Your task to perform on an android device: change the upload size in google photos Image 0: 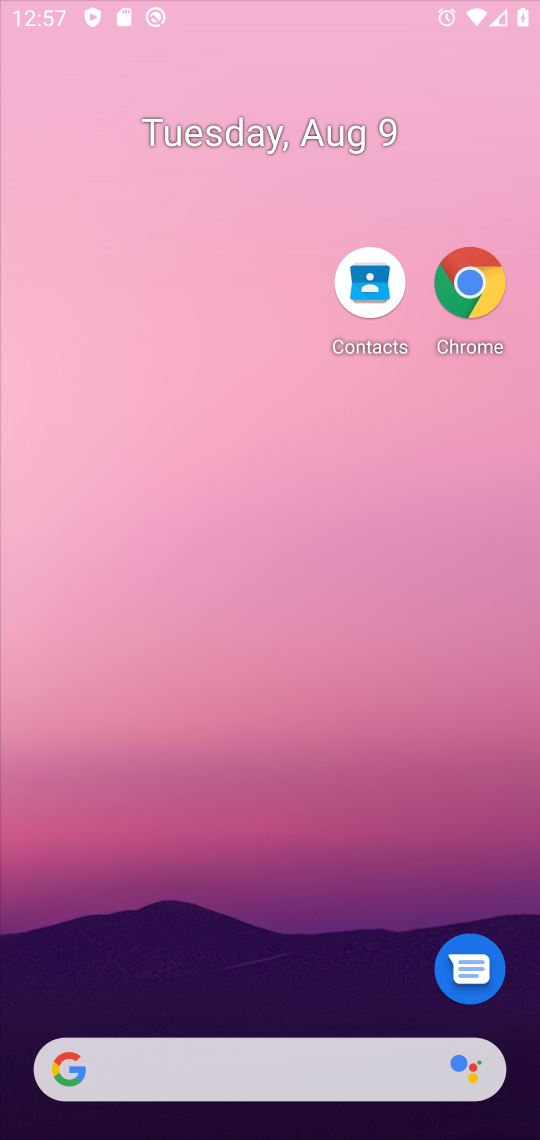
Step 0: drag from (256, 756) to (240, 169)
Your task to perform on an android device: change the upload size in google photos Image 1: 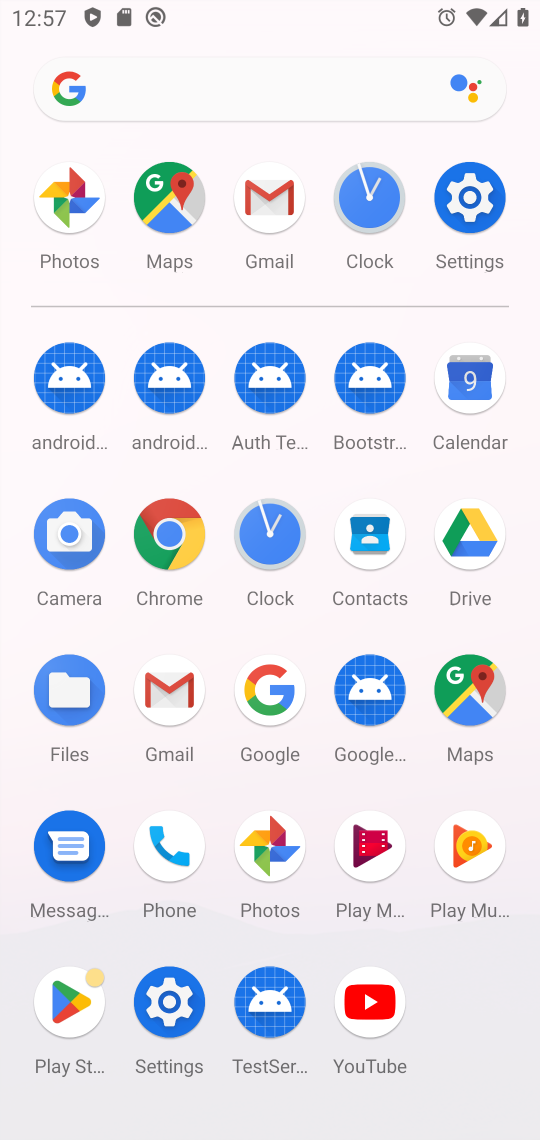
Step 1: drag from (225, 785) to (225, 228)
Your task to perform on an android device: change the upload size in google photos Image 2: 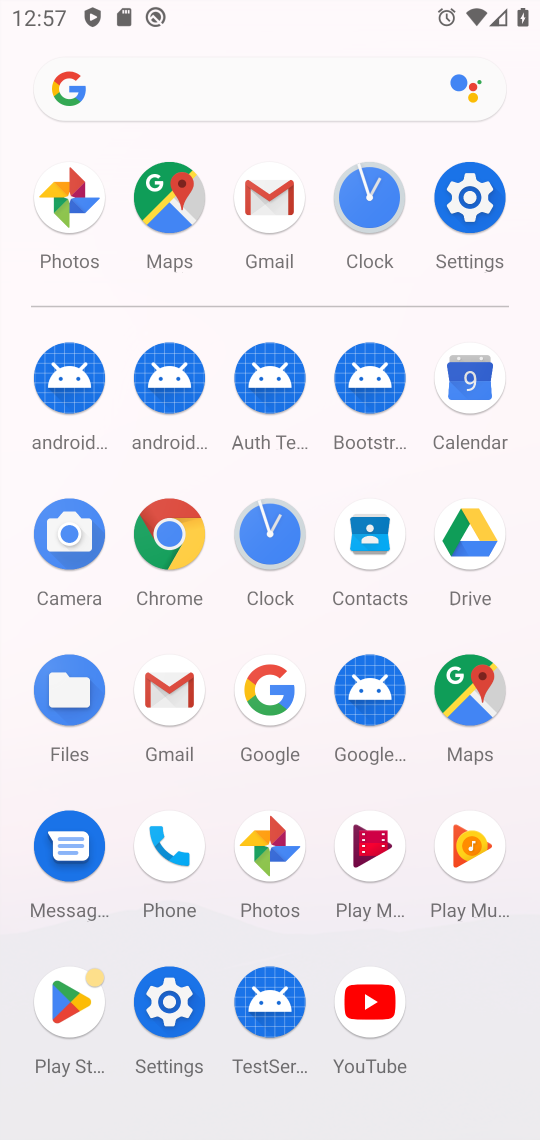
Step 2: drag from (210, 915) to (235, 116)
Your task to perform on an android device: change the upload size in google photos Image 3: 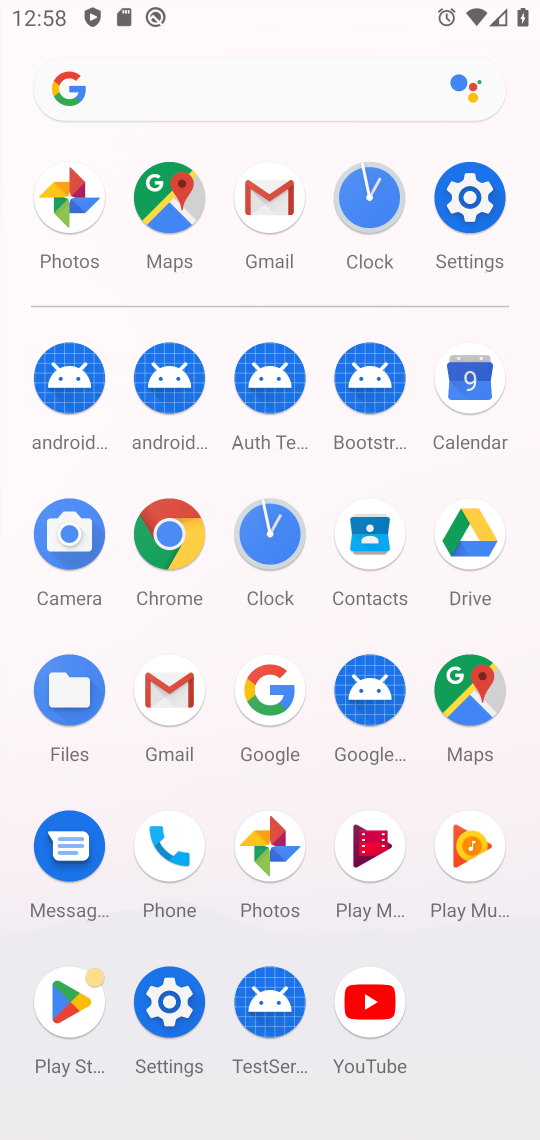
Step 3: click (268, 857)
Your task to perform on an android device: change the upload size in google photos Image 4: 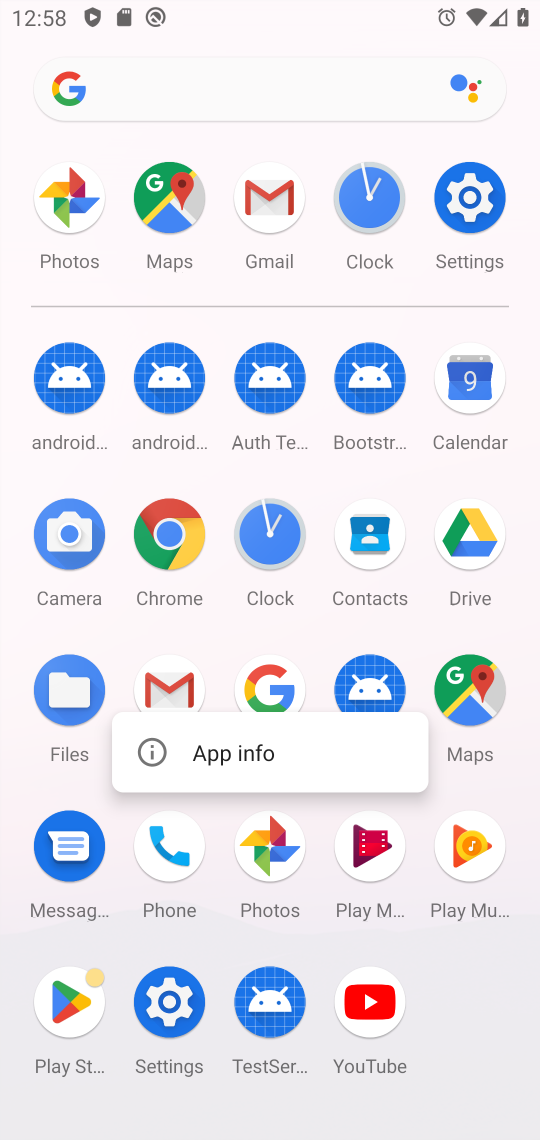
Step 4: click (195, 750)
Your task to perform on an android device: change the upload size in google photos Image 5: 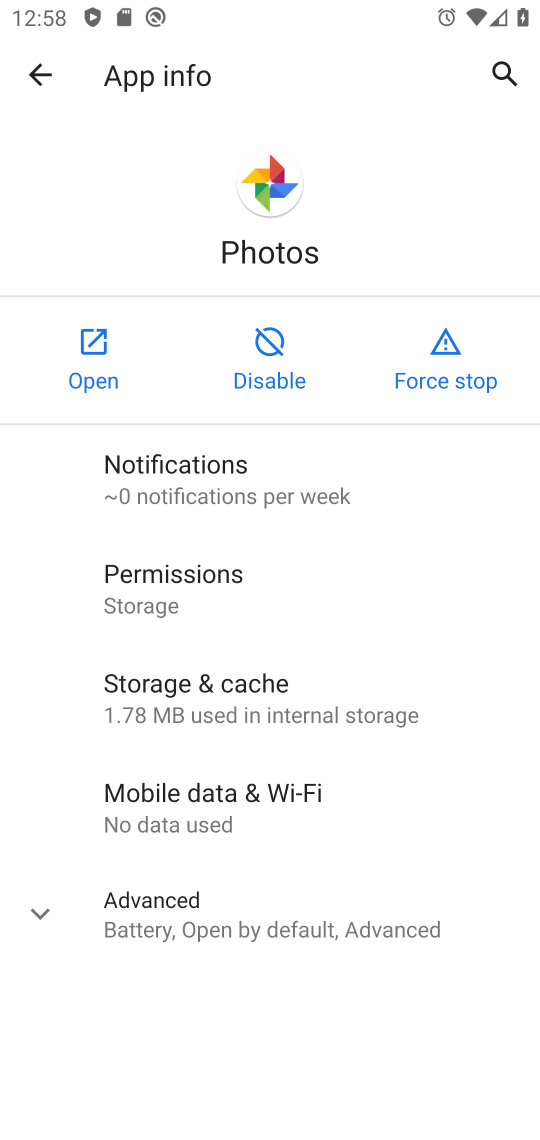
Step 5: click (79, 358)
Your task to perform on an android device: change the upload size in google photos Image 6: 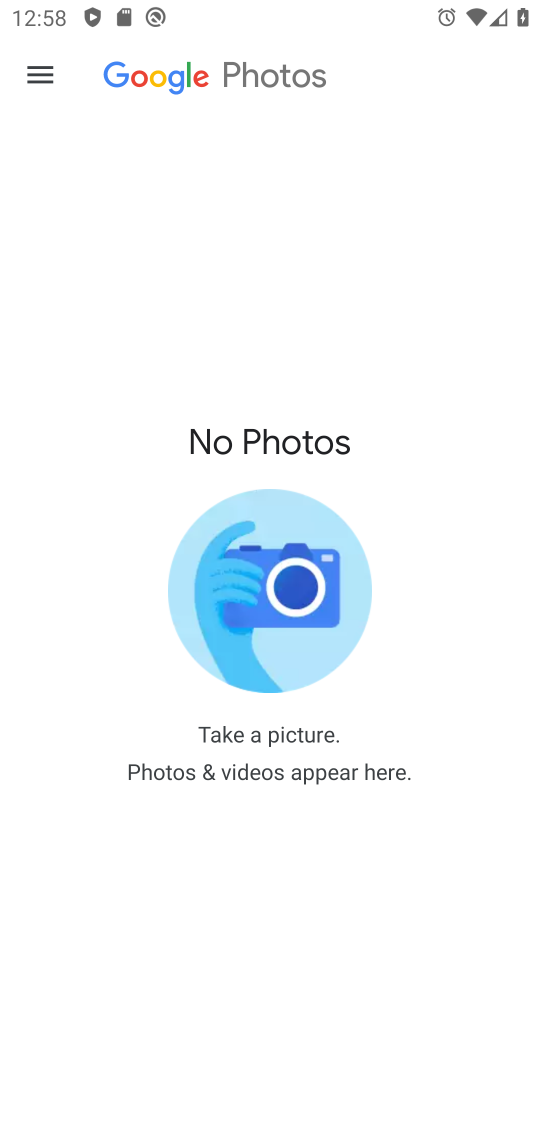
Step 6: click (45, 71)
Your task to perform on an android device: change the upload size in google photos Image 7: 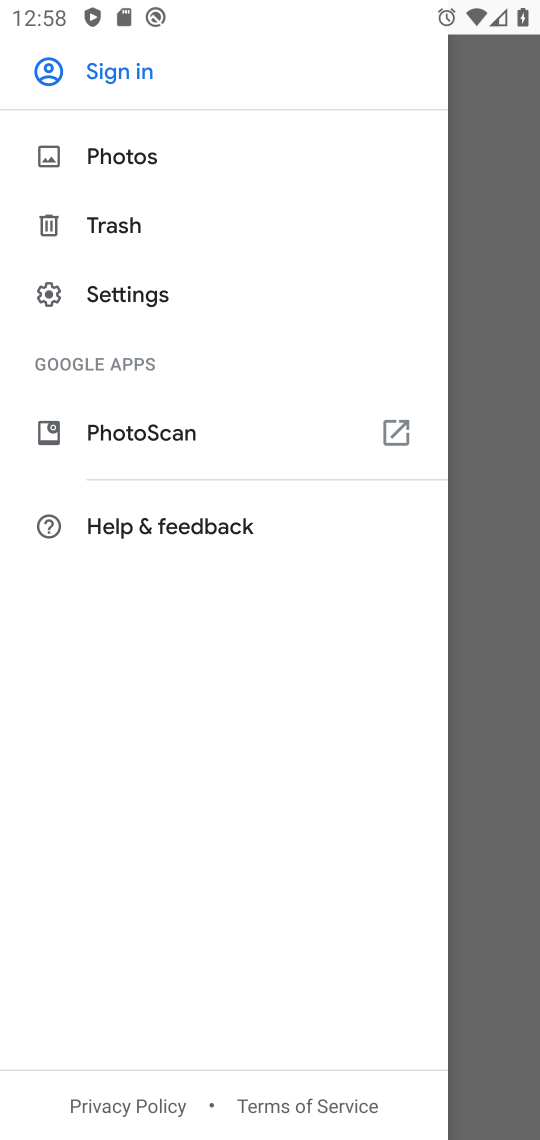
Step 7: click (114, 297)
Your task to perform on an android device: change the upload size in google photos Image 8: 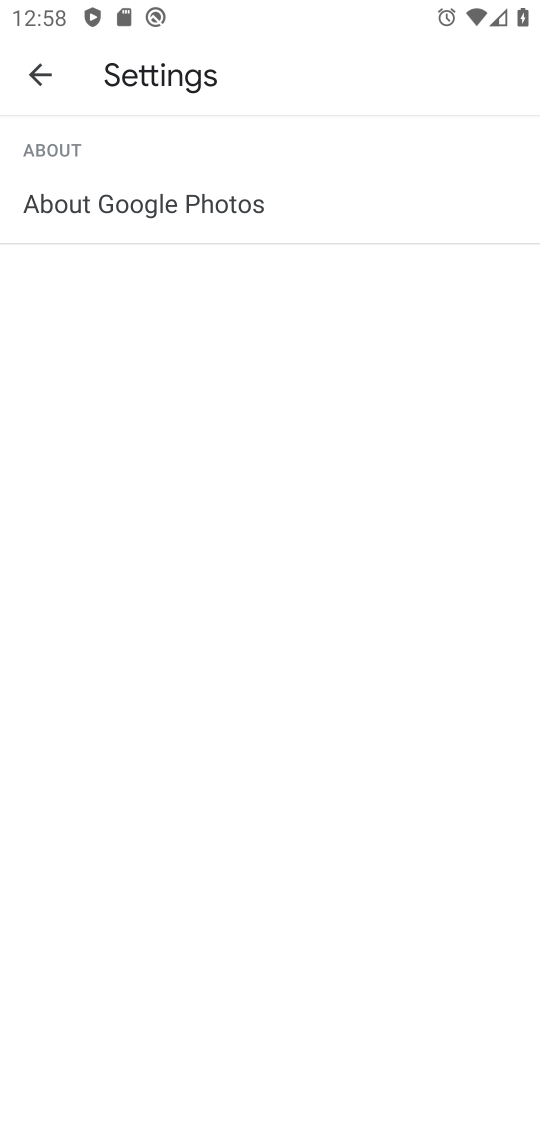
Step 8: drag from (304, 239) to (288, 49)
Your task to perform on an android device: change the upload size in google photos Image 9: 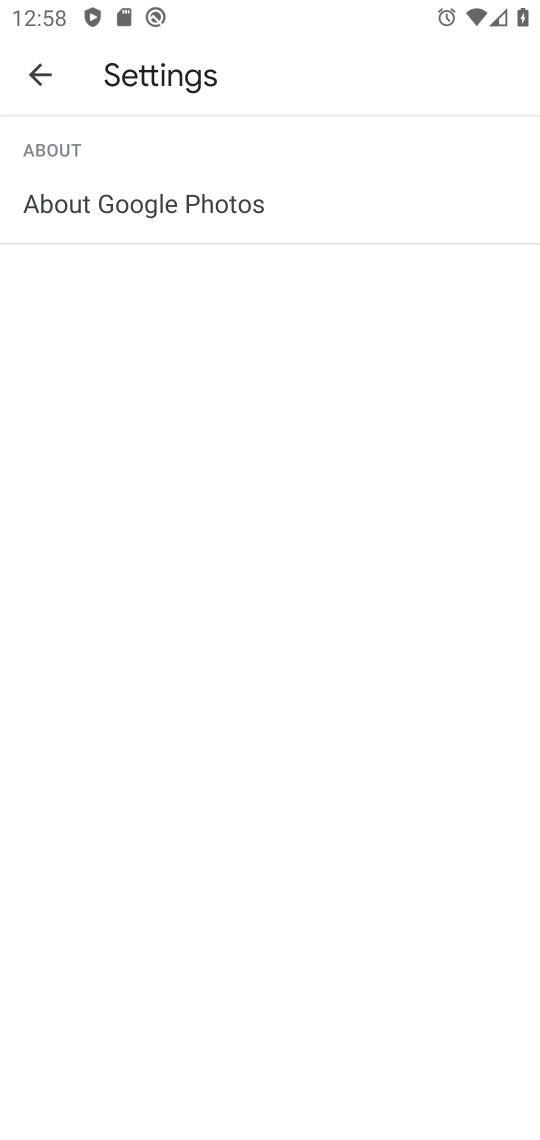
Step 9: drag from (280, 791) to (314, 615)
Your task to perform on an android device: change the upload size in google photos Image 10: 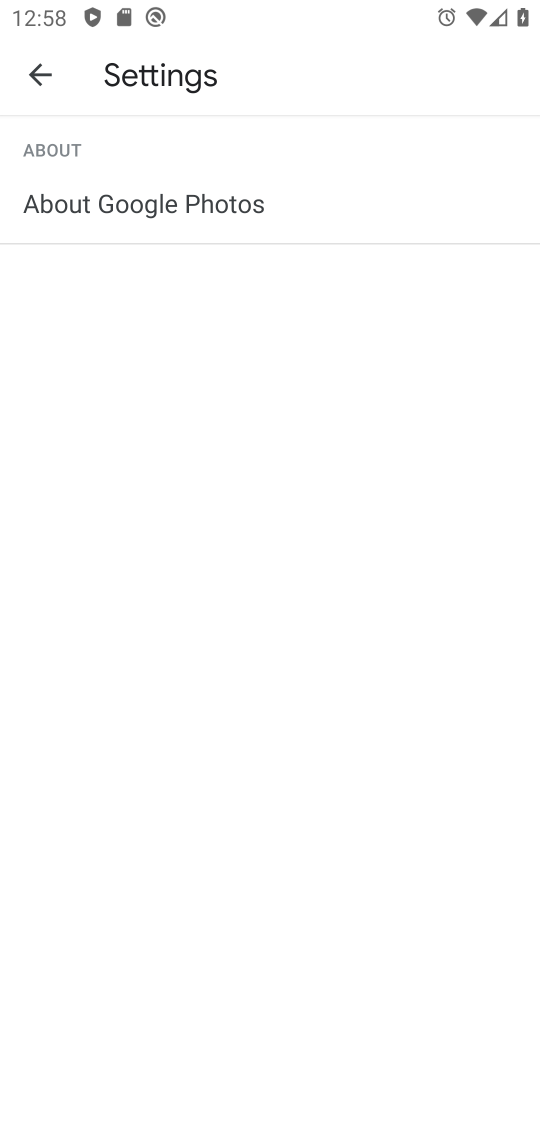
Step 10: drag from (177, 633) to (191, 583)
Your task to perform on an android device: change the upload size in google photos Image 11: 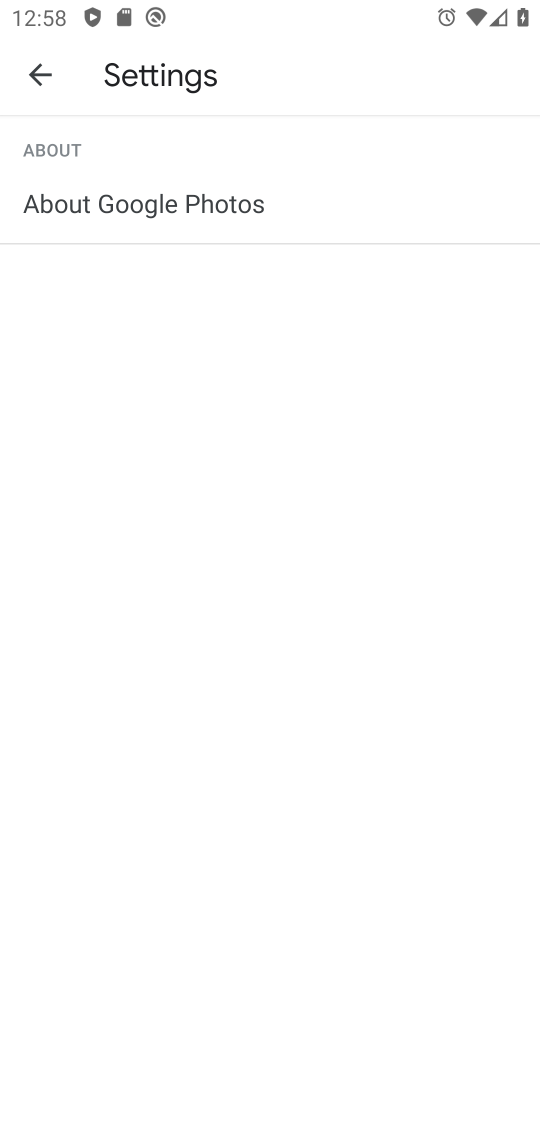
Step 11: drag from (245, 432) to (279, 694)
Your task to perform on an android device: change the upload size in google photos Image 12: 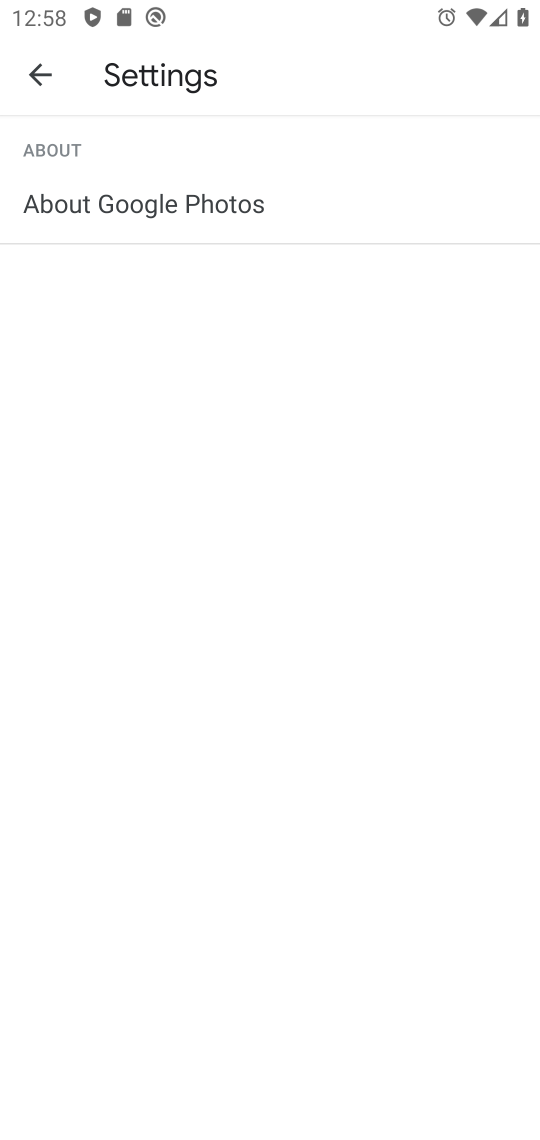
Step 12: drag from (312, 434) to (337, 610)
Your task to perform on an android device: change the upload size in google photos Image 13: 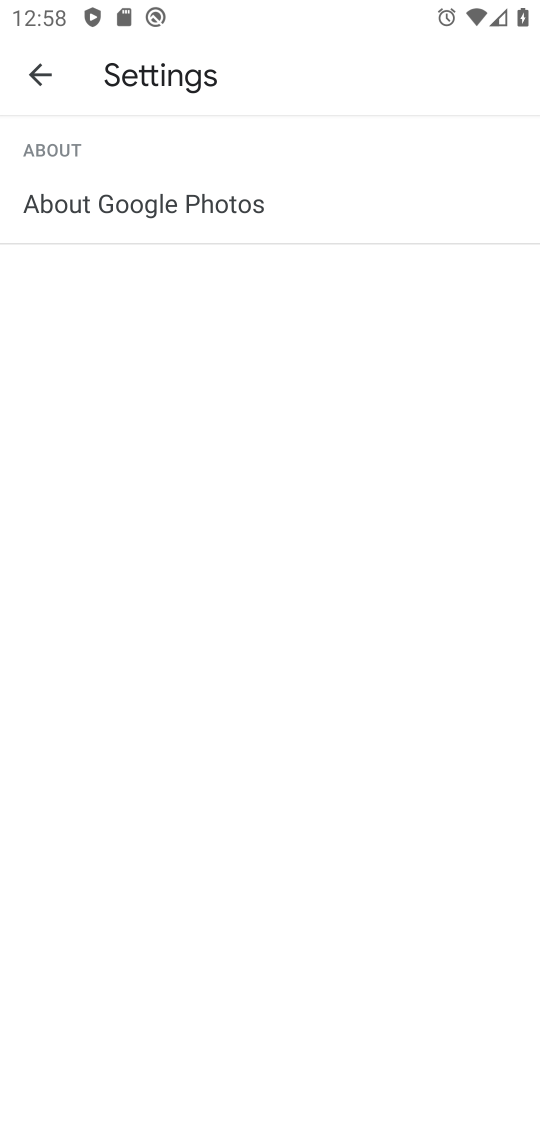
Step 13: drag from (247, 883) to (295, 611)
Your task to perform on an android device: change the upload size in google photos Image 14: 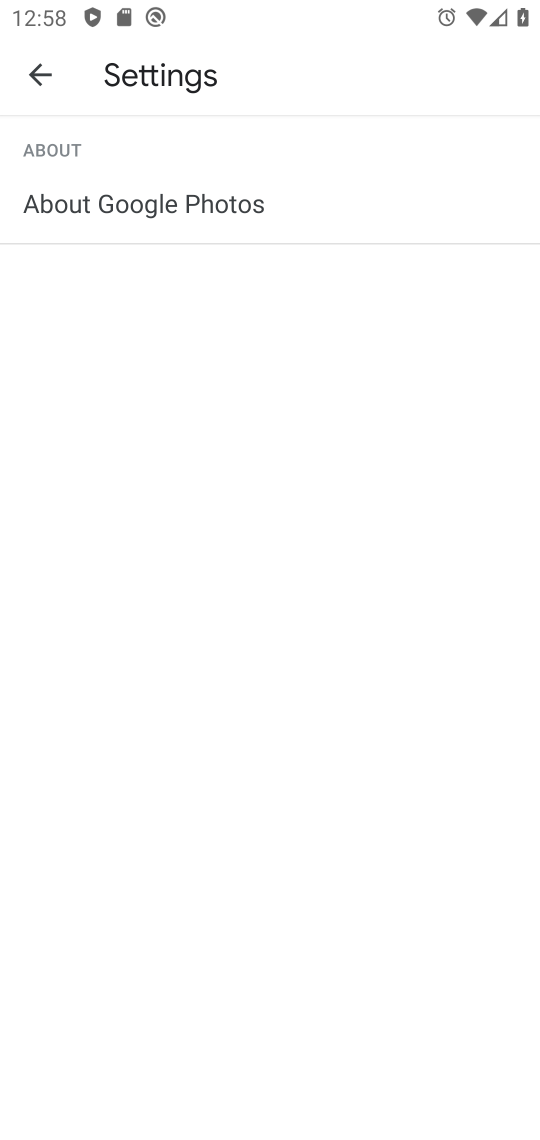
Step 14: drag from (322, 188) to (320, 763)
Your task to perform on an android device: change the upload size in google photos Image 15: 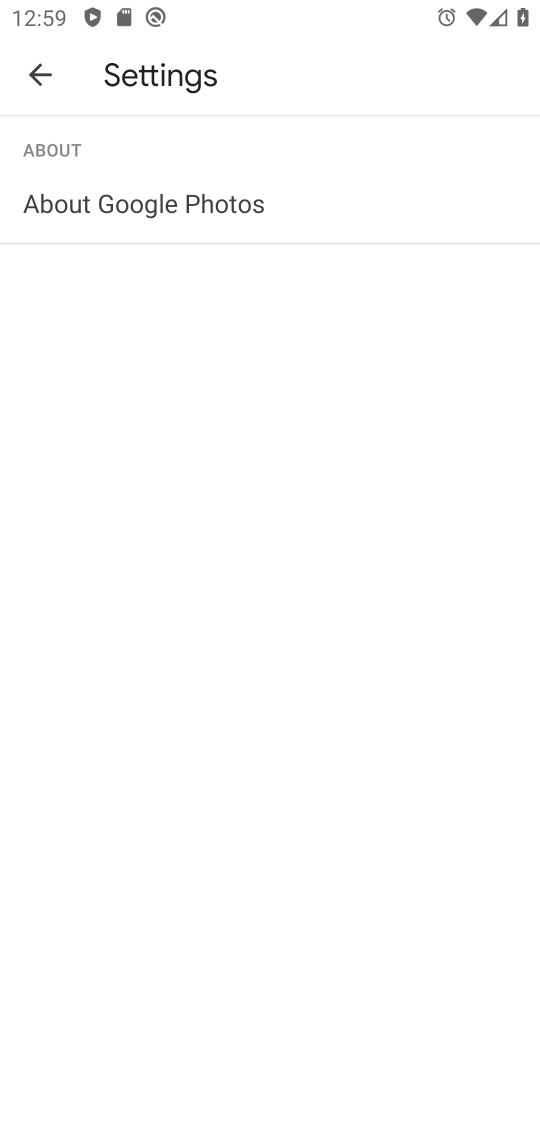
Step 15: drag from (307, 904) to (362, 621)
Your task to perform on an android device: change the upload size in google photos Image 16: 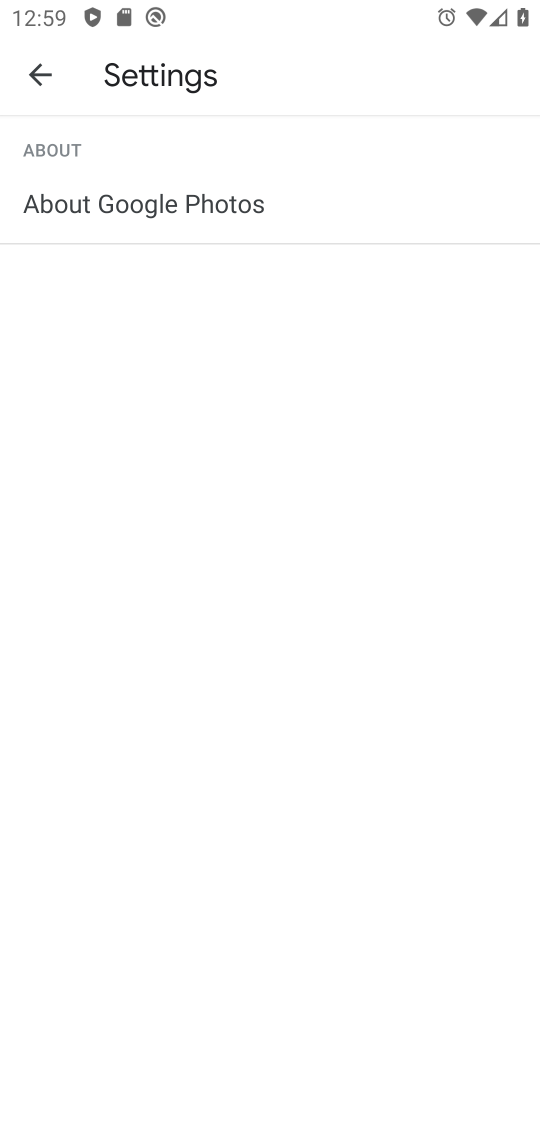
Step 16: drag from (225, 717) to (352, 1071)
Your task to perform on an android device: change the upload size in google photos Image 17: 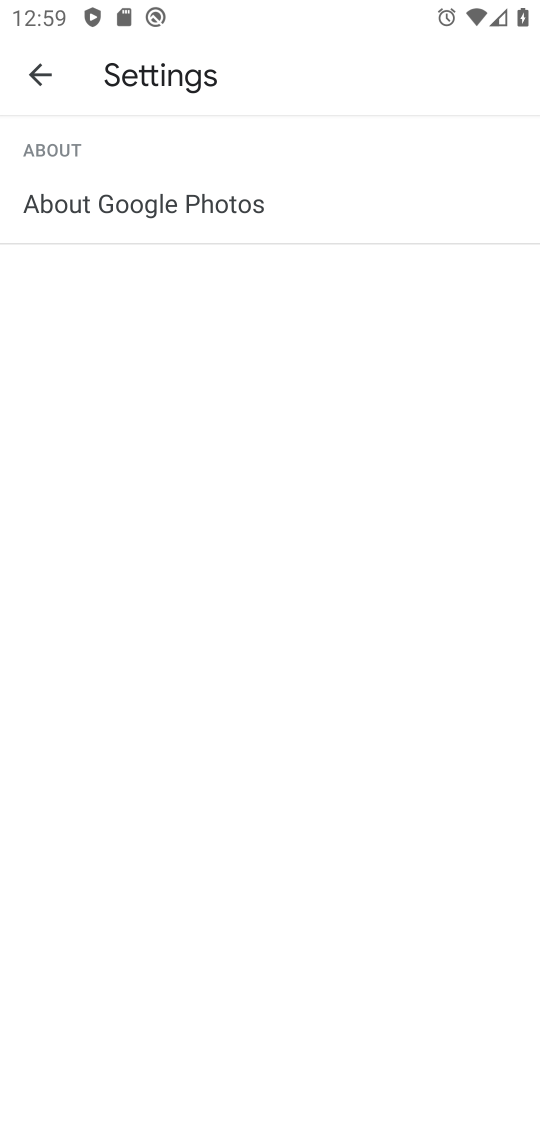
Step 17: click (34, 88)
Your task to perform on an android device: change the upload size in google photos Image 18: 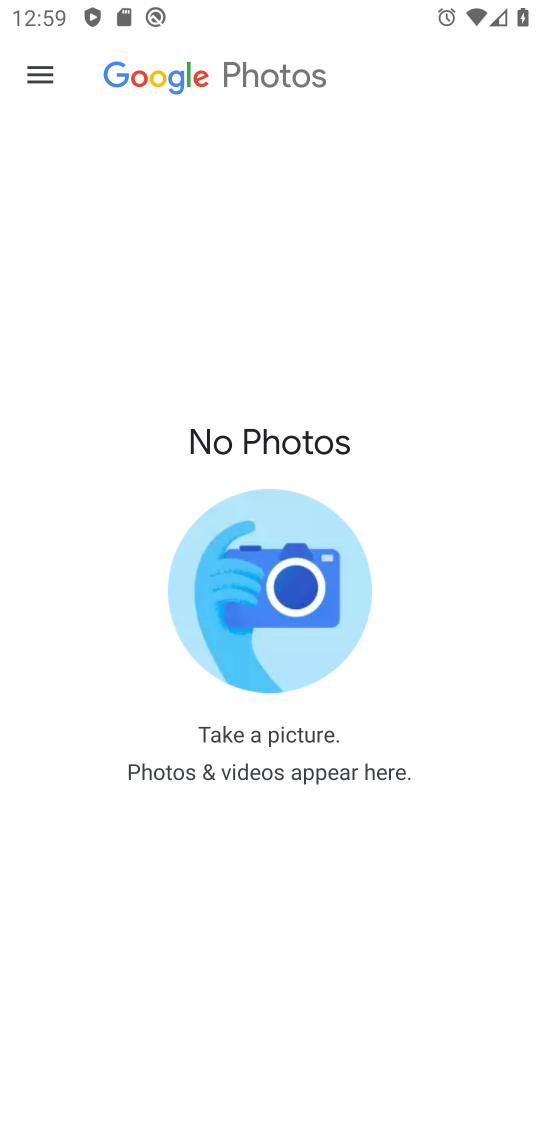
Step 18: click (41, 87)
Your task to perform on an android device: change the upload size in google photos Image 19: 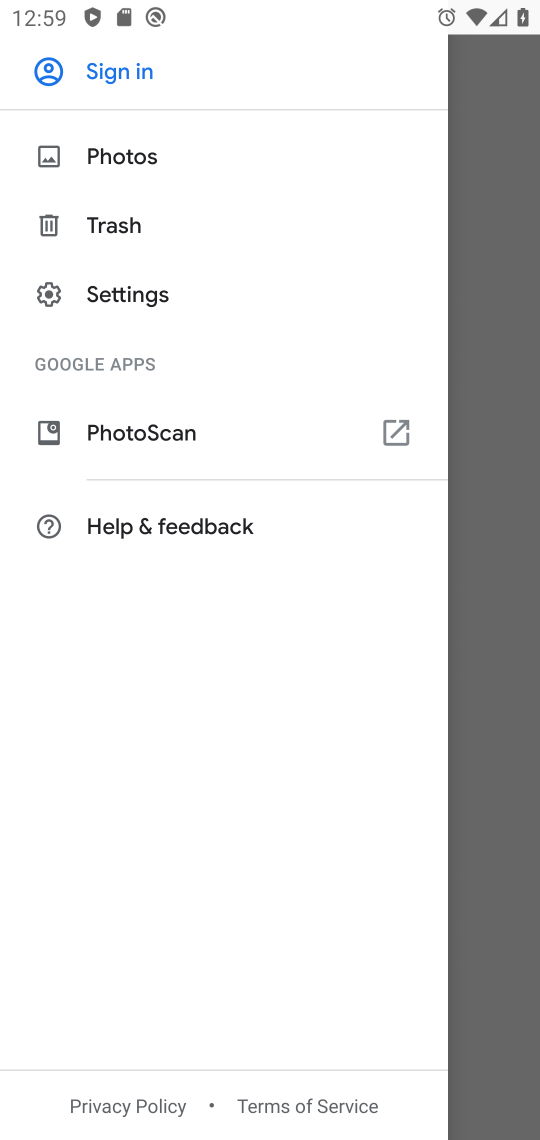
Step 19: click (144, 301)
Your task to perform on an android device: change the upload size in google photos Image 20: 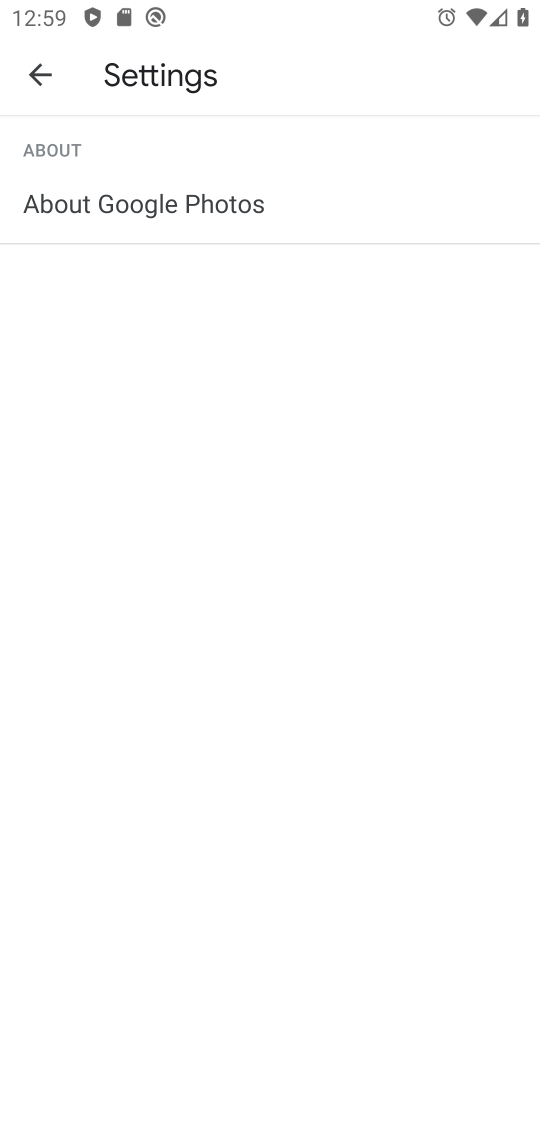
Step 20: task complete